Your task to perform on an android device: change notification settings in the gmail app Image 0: 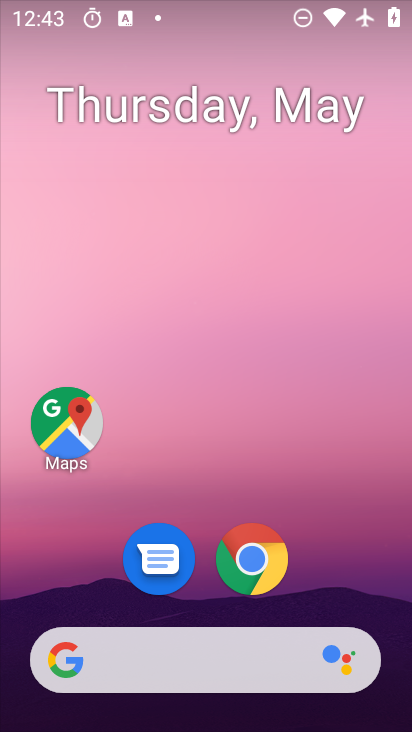
Step 0: drag from (225, 568) to (230, 175)
Your task to perform on an android device: change notification settings in the gmail app Image 1: 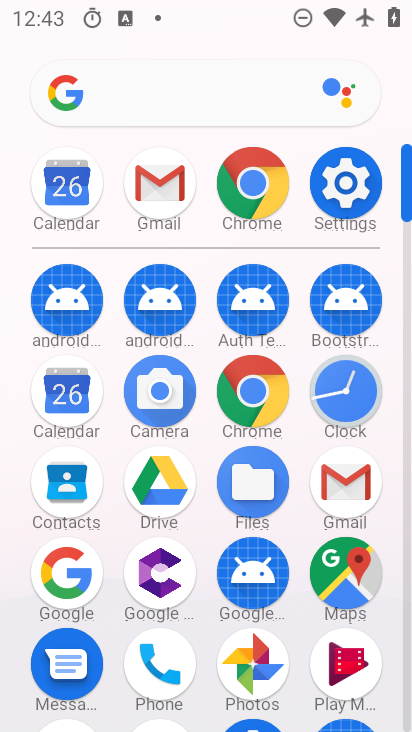
Step 1: click (347, 490)
Your task to perform on an android device: change notification settings in the gmail app Image 2: 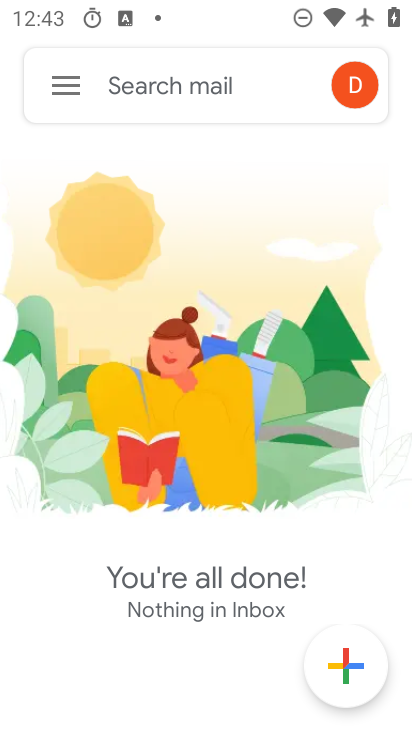
Step 2: click (61, 87)
Your task to perform on an android device: change notification settings in the gmail app Image 3: 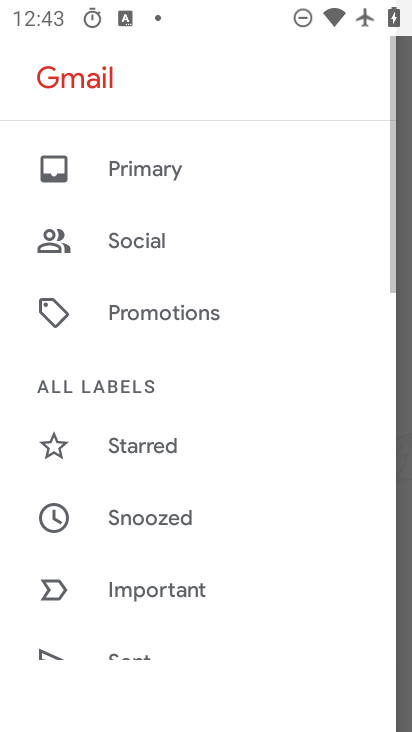
Step 3: drag from (163, 550) to (195, 188)
Your task to perform on an android device: change notification settings in the gmail app Image 4: 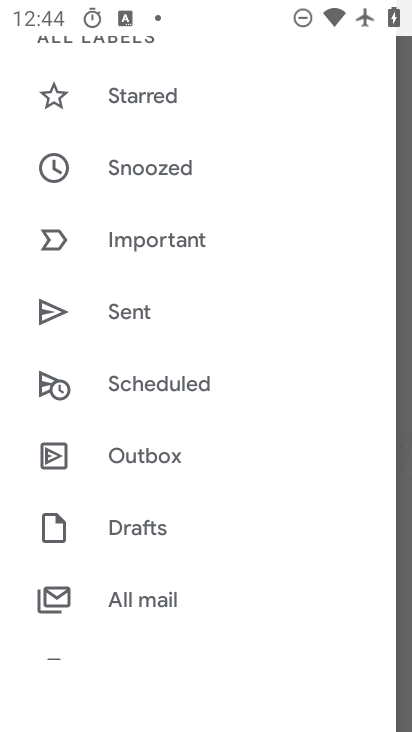
Step 4: drag from (185, 582) to (190, 259)
Your task to perform on an android device: change notification settings in the gmail app Image 5: 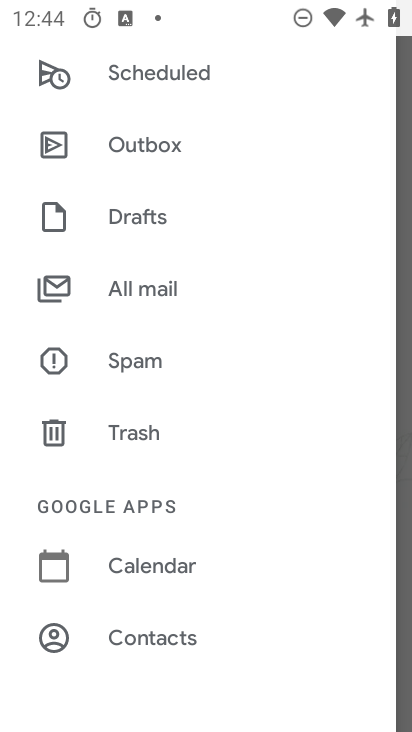
Step 5: drag from (145, 636) to (175, 299)
Your task to perform on an android device: change notification settings in the gmail app Image 6: 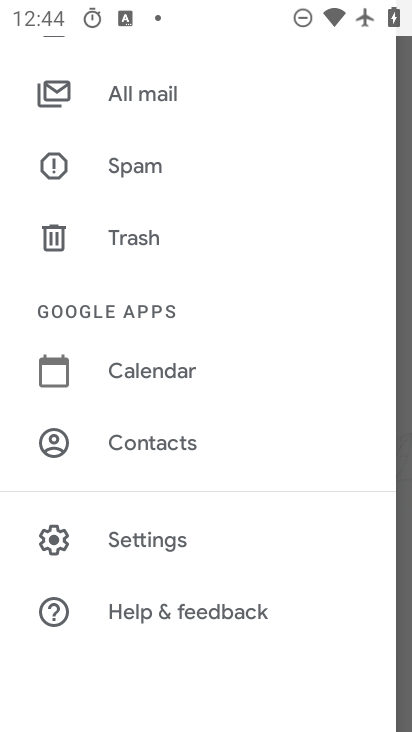
Step 6: drag from (145, 509) to (177, 272)
Your task to perform on an android device: change notification settings in the gmail app Image 7: 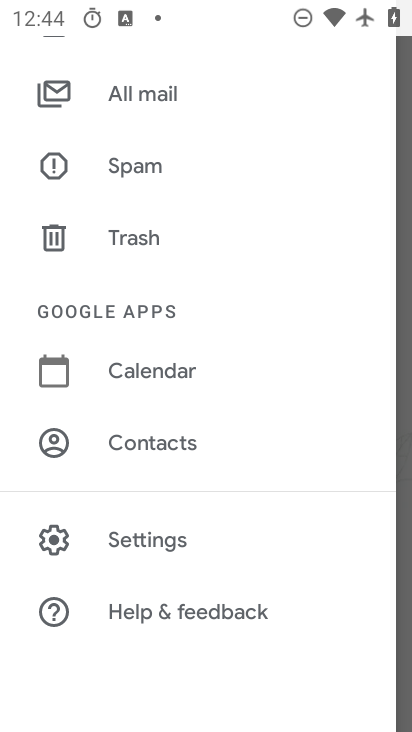
Step 7: click (167, 535)
Your task to perform on an android device: change notification settings in the gmail app Image 8: 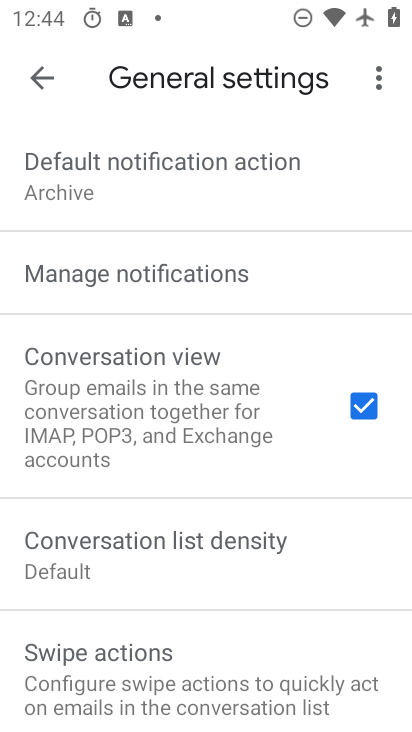
Step 8: click (160, 277)
Your task to perform on an android device: change notification settings in the gmail app Image 9: 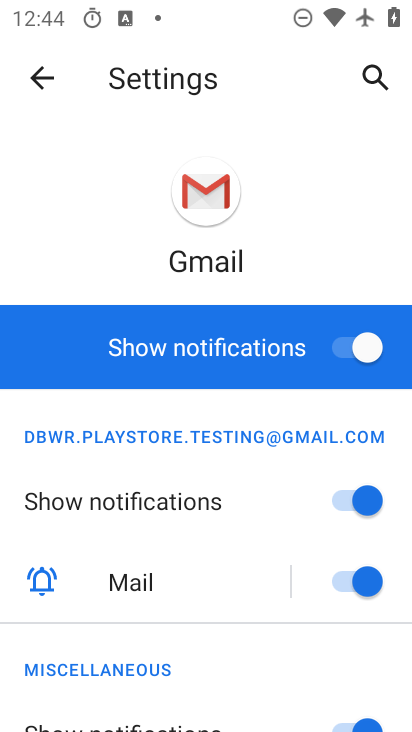
Step 9: click (325, 350)
Your task to perform on an android device: change notification settings in the gmail app Image 10: 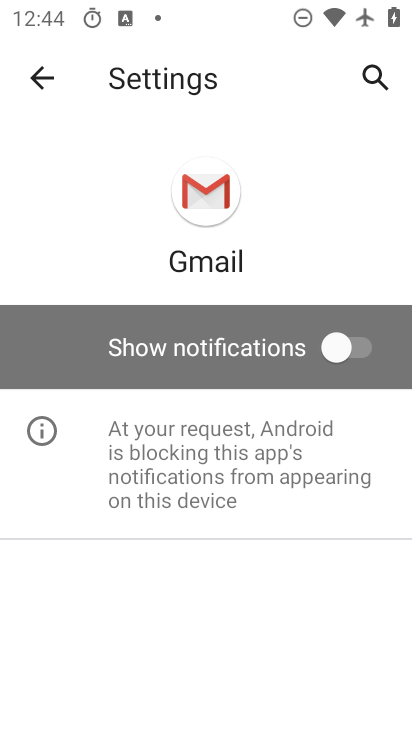
Step 10: task complete